Your task to perform on an android device: What's on my calendar today? Image 0: 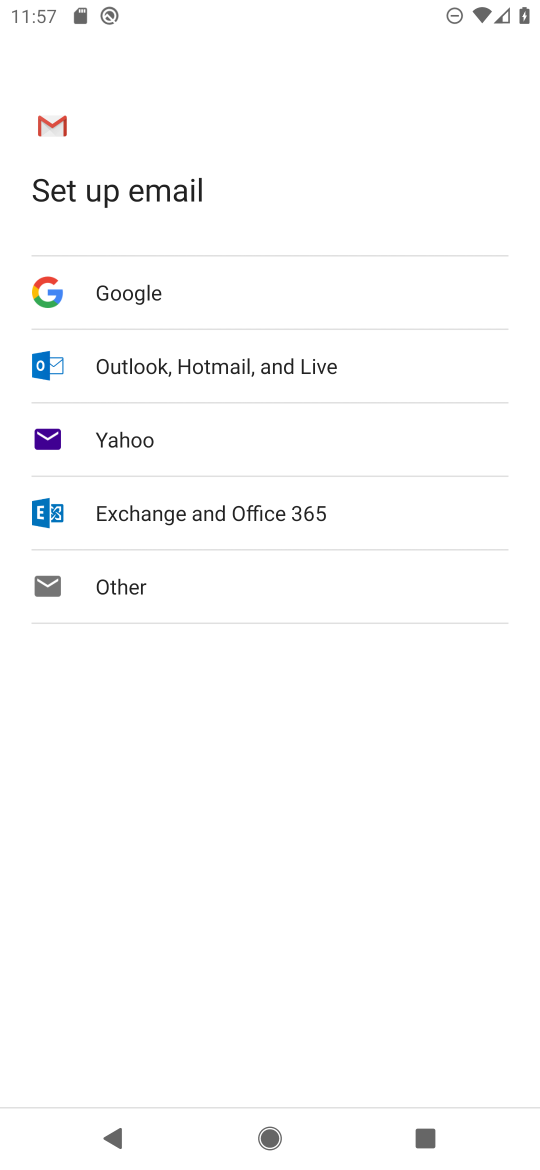
Step 0: press home button
Your task to perform on an android device: What's on my calendar today? Image 1: 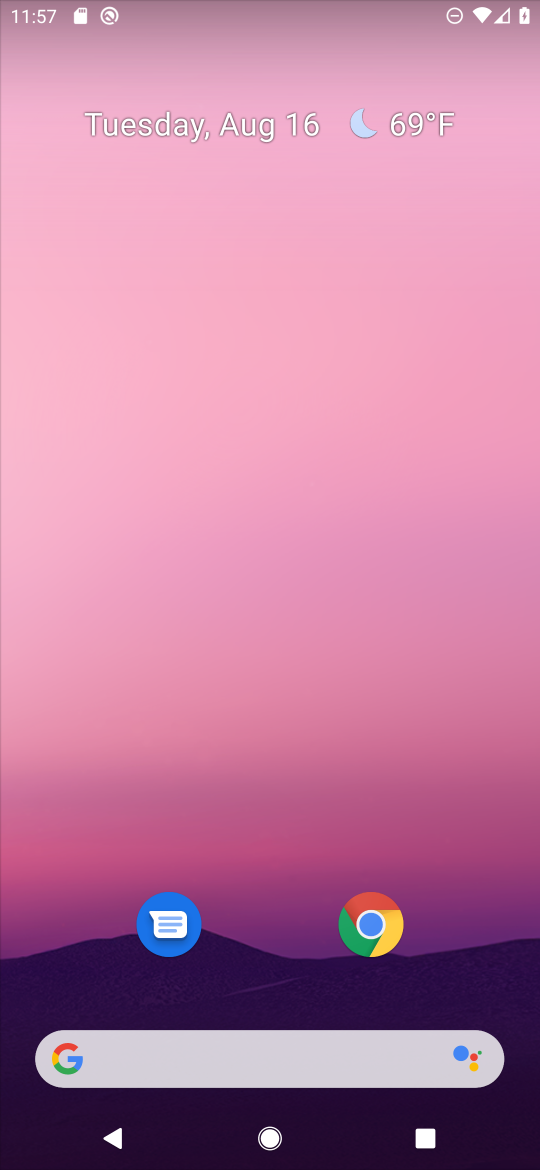
Step 1: click (259, 120)
Your task to perform on an android device: What's on my calendar today? Image 2: 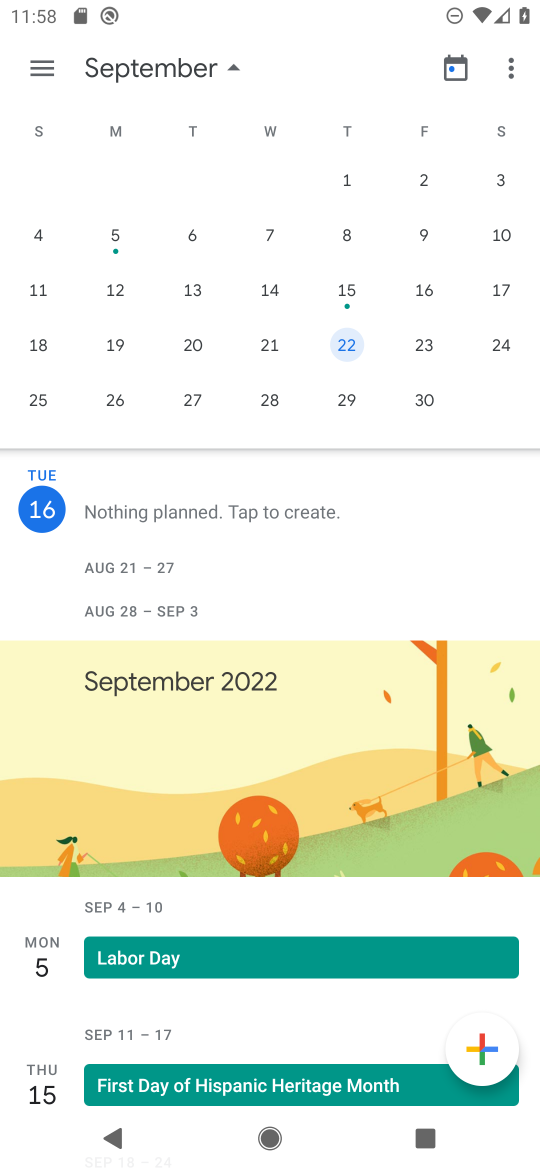
Step 2: task complete